Your task to perform on an android device: Search for the best gaming monitor on Best Buy Image 0: 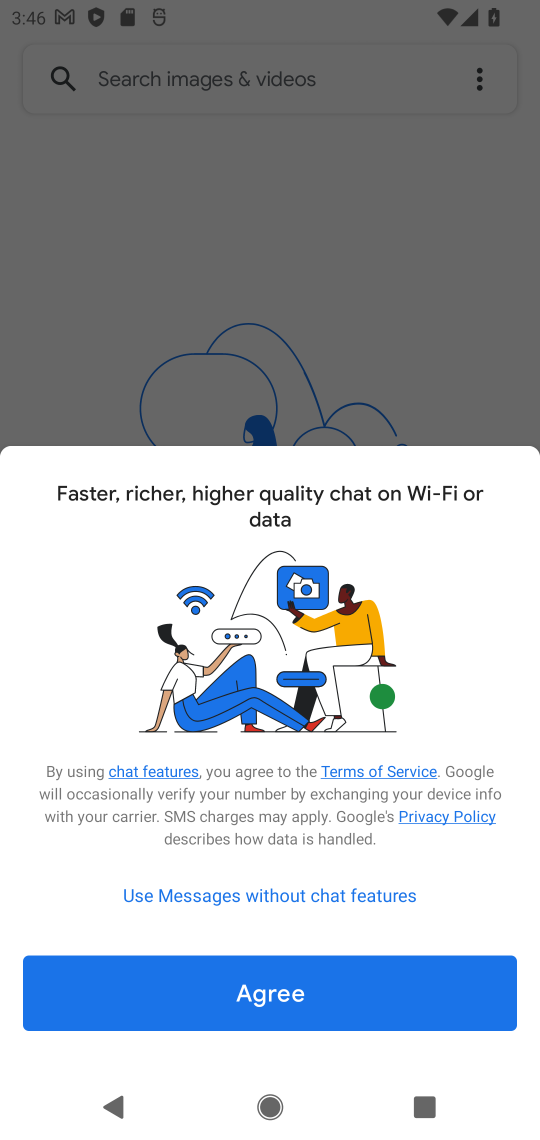
Step 0: press home button
Your task to perform on an android device: Search for the best gaming monitor on Best Buy Image 1: 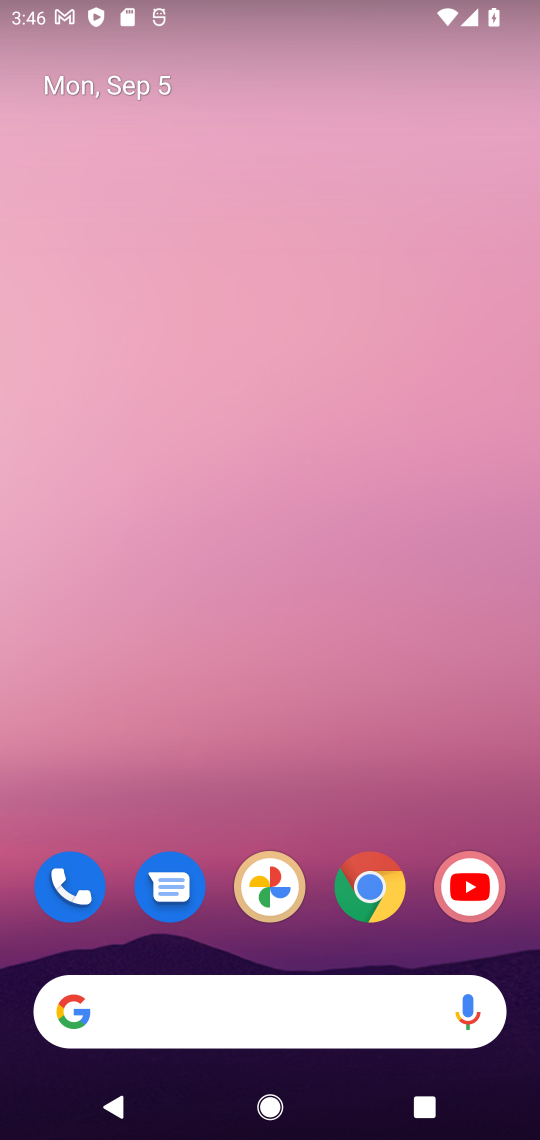
Step 1: drag from (219, 936) to (246, 0)
Your task to perform on an android device: Search for the best gaming monitor on Best Buy Image 2: 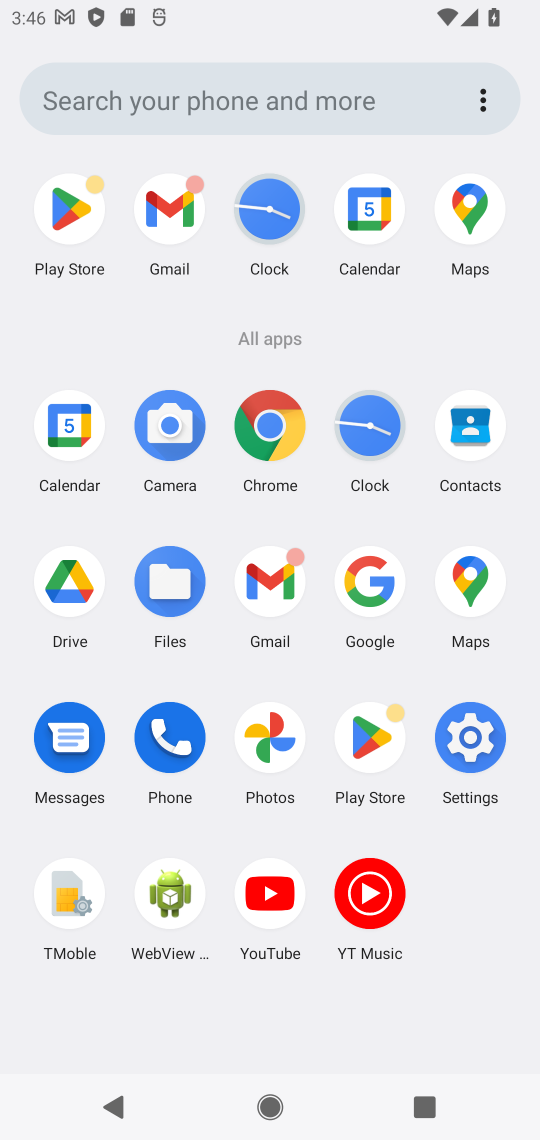
Step 2: click (276, 417)
Your task to perform on an android device: Search for the best gaming monitor on Best Buy Image 3: 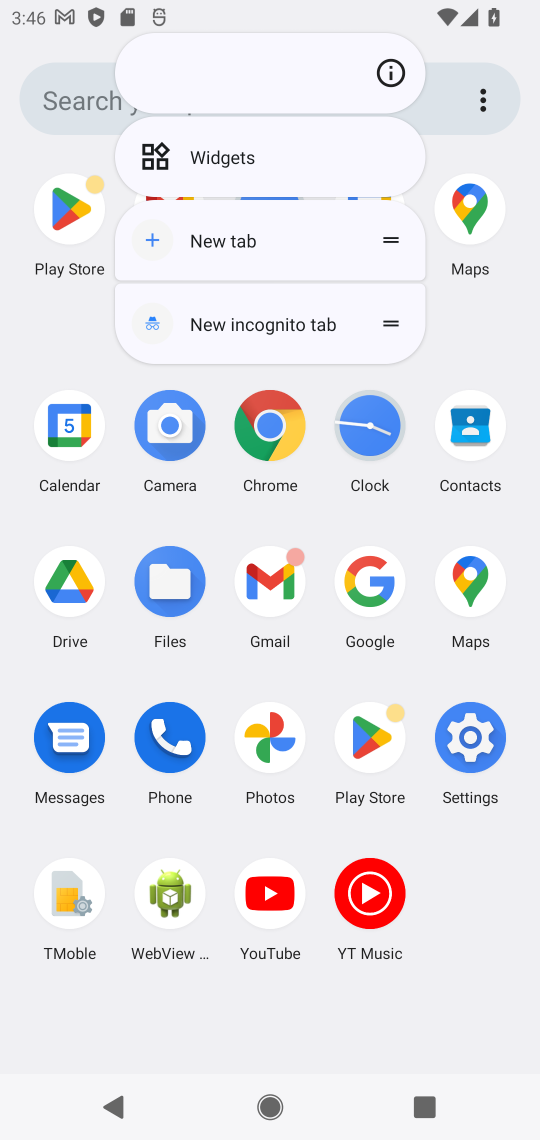
Step 3: click (271, 420)
Your task to perform on an android device: Search for the best gaming monitor on Best Buy Image 4: 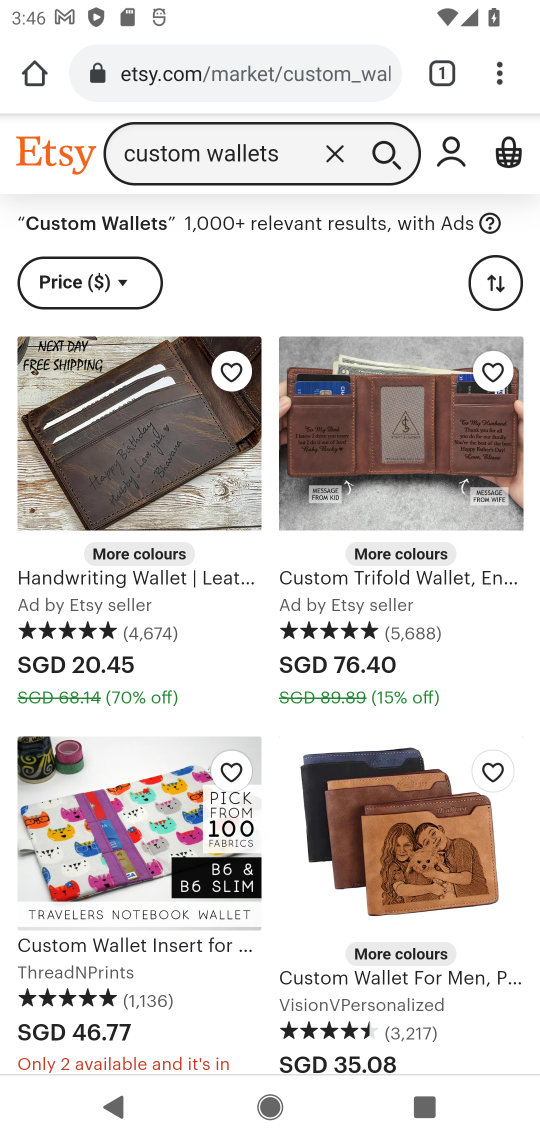
Step 4: click (320, 69)
Your task to perform on an android device: Search for the best gaming monitor on Best Buy Image 5: 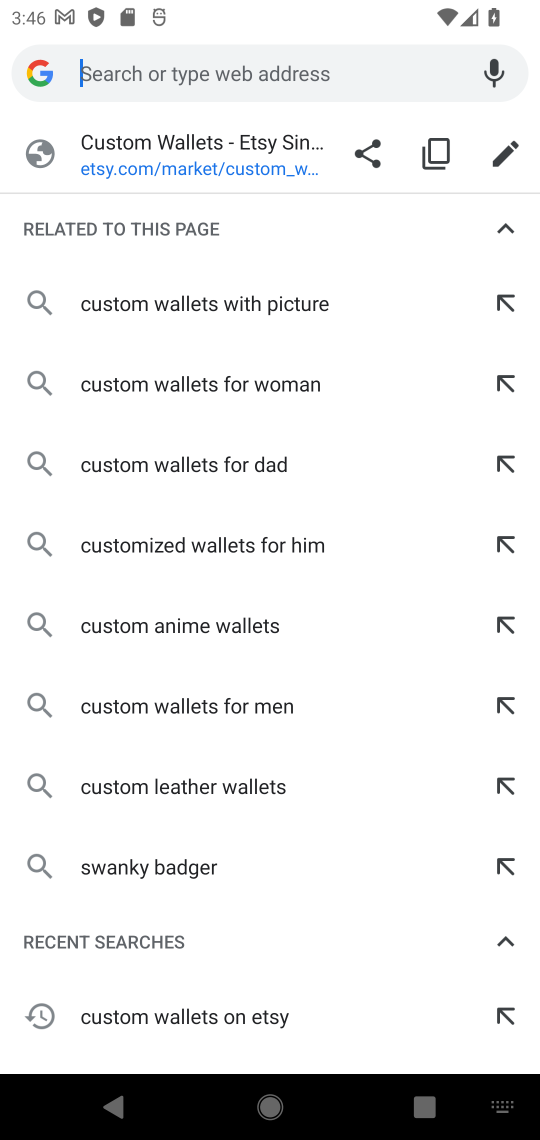
Step 5: type "the best gaming monitor on Best Buy"
Your task to perform on an android device: Search for the best gaming monitor on Best Buy Image 6: 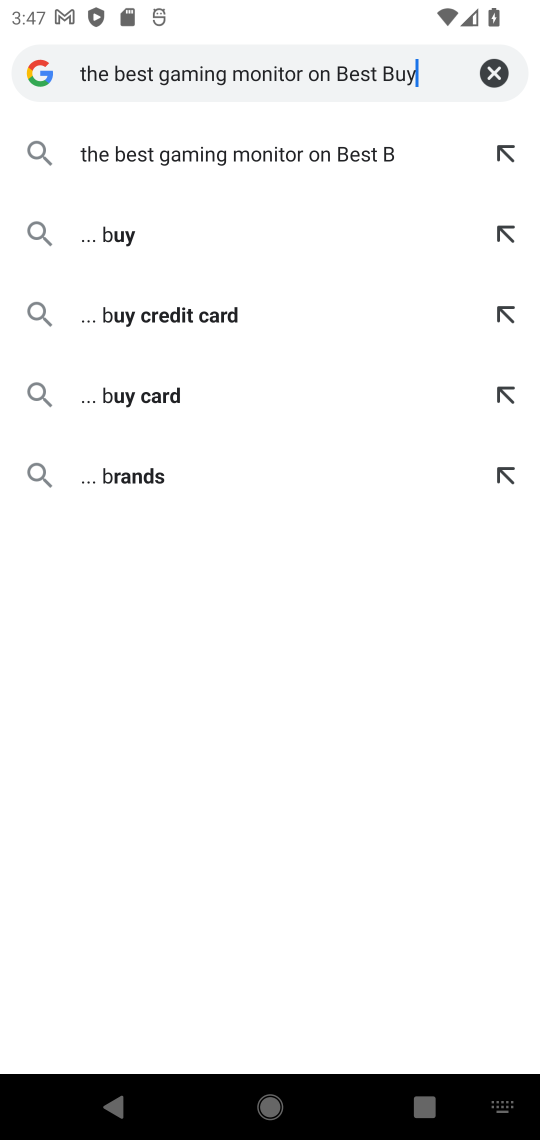
Step 6: press enter
Your task to perform on an android device: Search for the best gaming monitor on Best Buy Image 7: 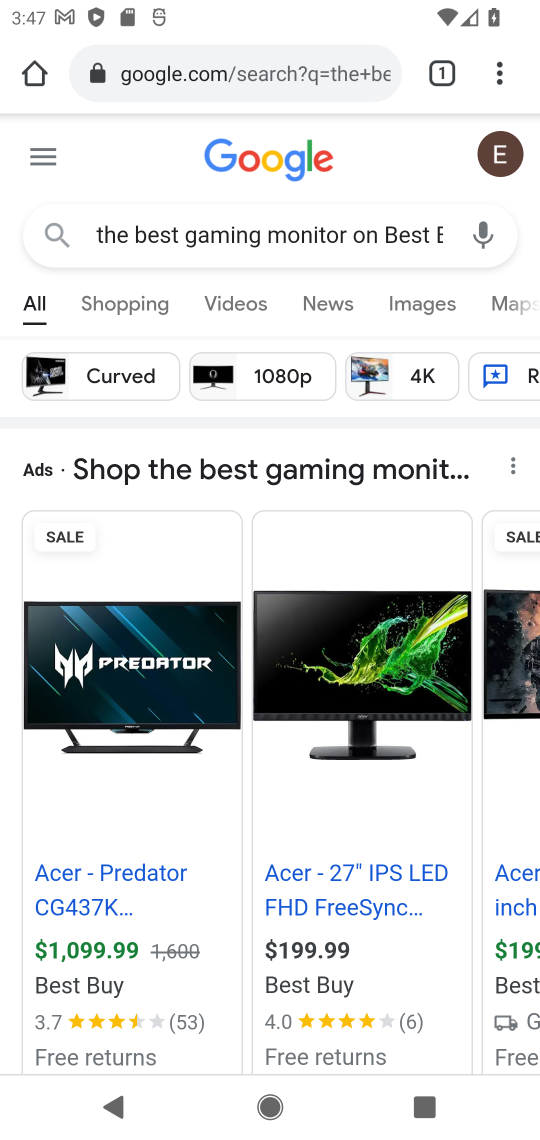
Step 7: drag from (227, 867) to (419, 328)
Your task to perform on an android device: Search for the best gaming monitor on Best Buy Image 8: 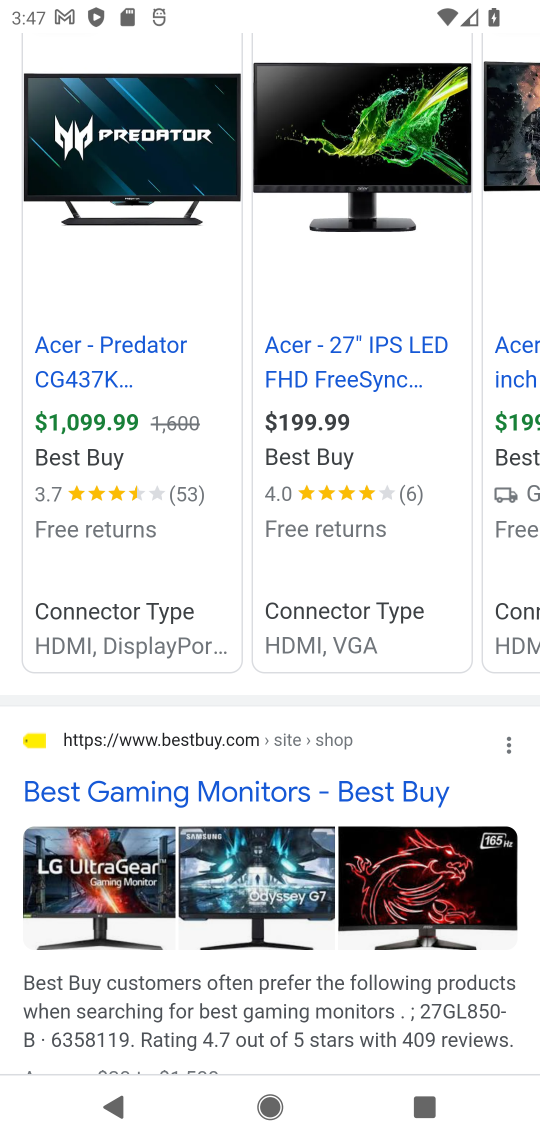
Step 8: click (257, 796)
Your task to perform on an android device: Search for the best gaming monitor on Best Buy Image 9: 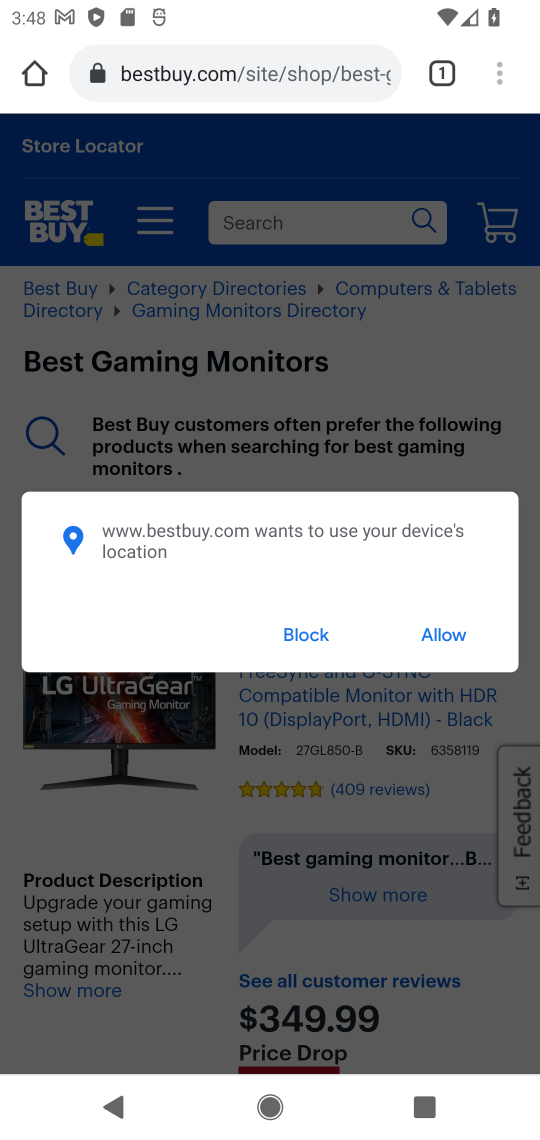
Step 9: click (301, 623)
Your task to perform on an android device: Search for the best gaming monitor on Best Buy Image 10: 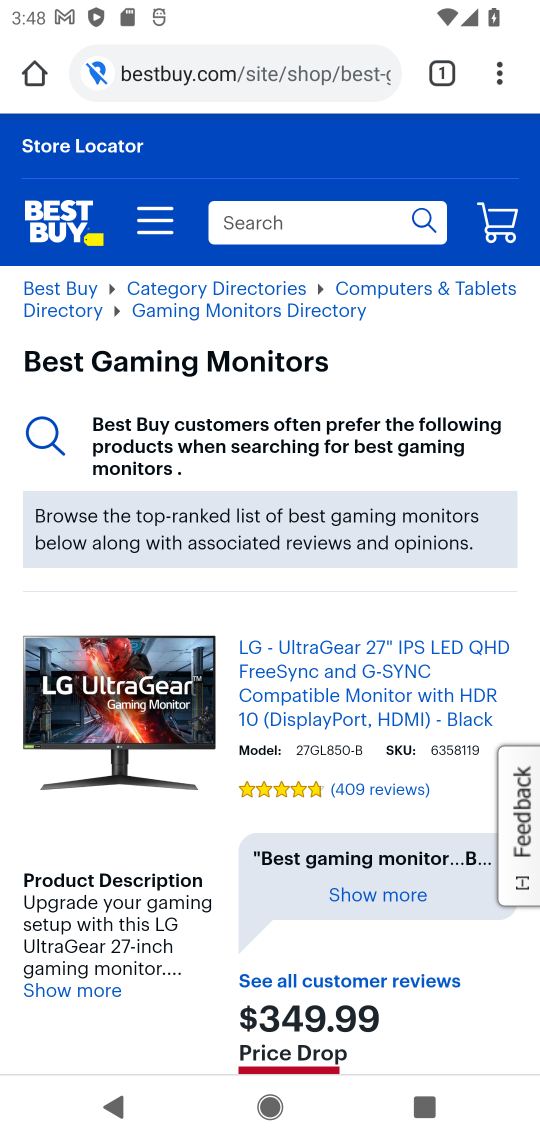
Step 10: task complete